Your task to perform on an android device: Open calendar and show me the third week of next month Image 0: 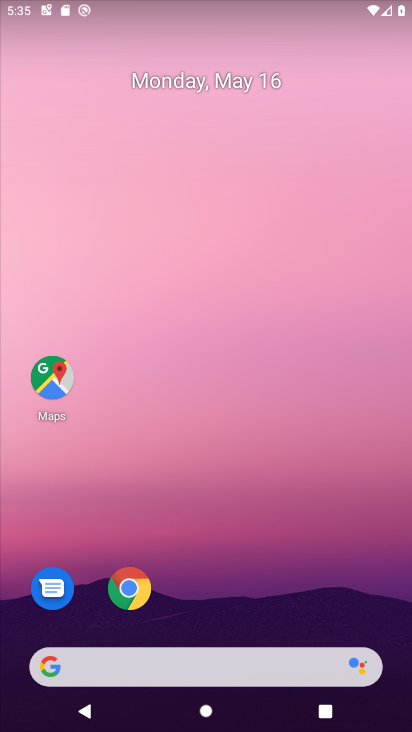
Step 0: drag from (264, 591) to (153, 16)
Your task to perform on an android device: Open calendar and show me the third week of next month Image 1: 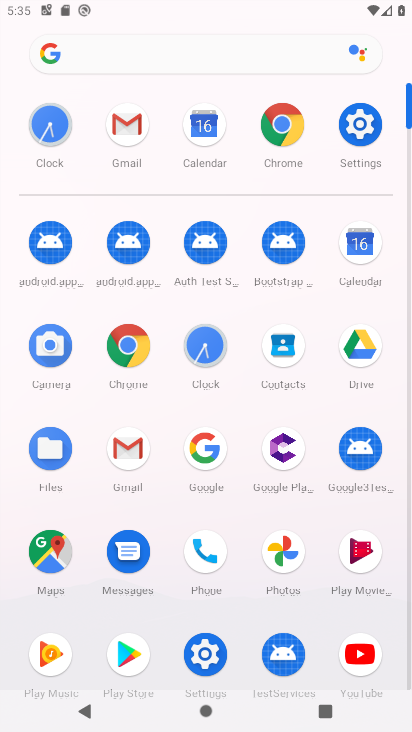
Step 1: click (368, 243)
Your task to perform on an android device: Open calendar and show me the third week of next month Image 2: 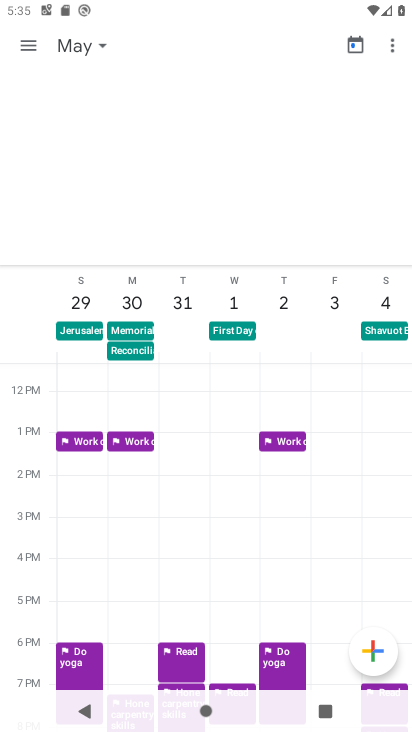
Step 2: click (94, 49)
Your task to perform on an android device: Open calendar and show me the third week of next month Image 3: 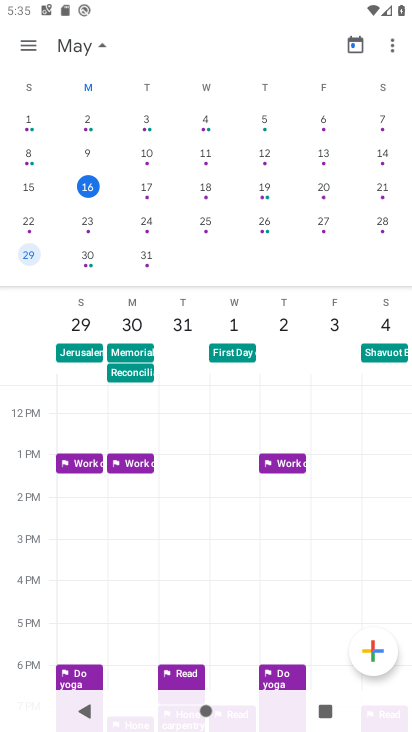
Step 3: drag from (347, 199) to (17, 188)
Your task to perform on an android device: Open calendar and show me the third week of next month Image 4: 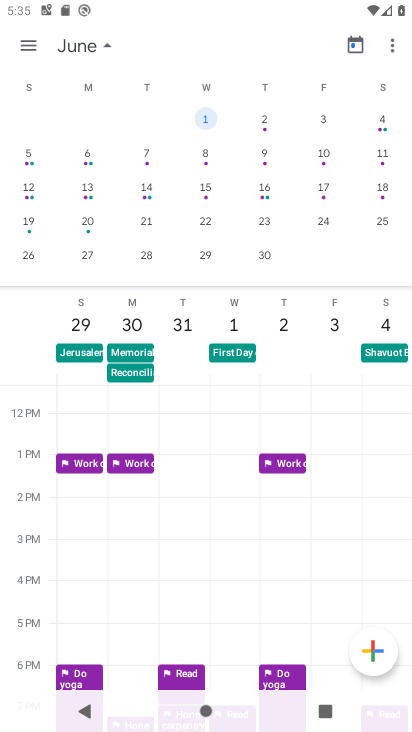
Step 4: click (83, 152)
Your task to perform on an android device: Open calendar and show me the third week of next month Image 5: 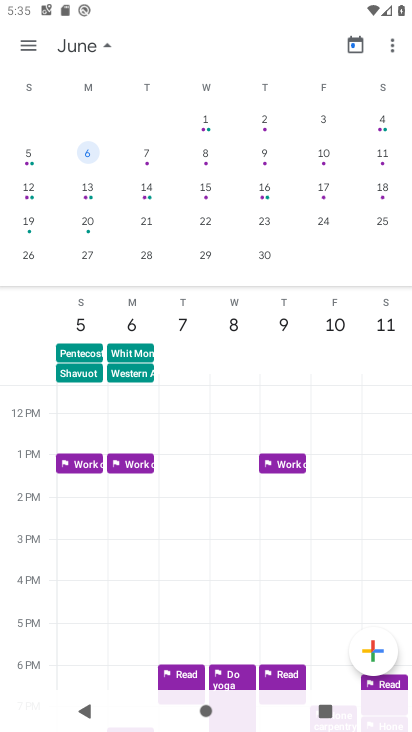
Step 5: click (33, 190)
Your task to perform on an android device: Open calendar and show me the third week of next month Image 6: 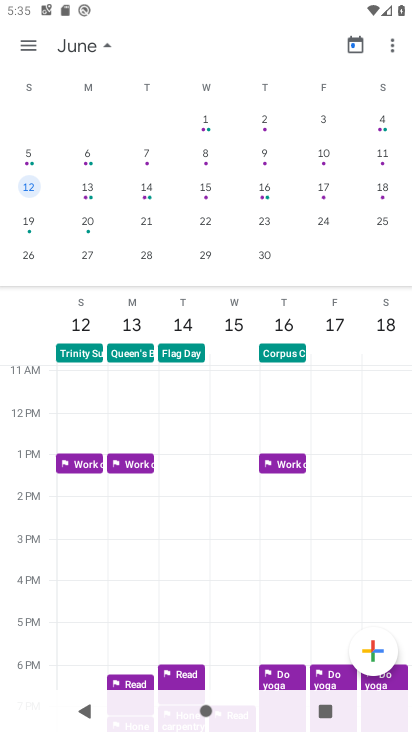
Step 6: task complete